Your task to perform on an android device: What's on my calendar tomorrow? Image 0: 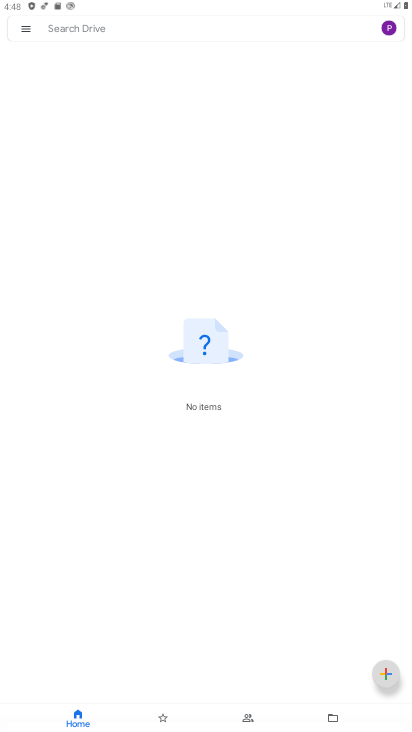
Step 0: press home button
Your task to perform on an android device: What's on my calendar tomorrow? Image 1: 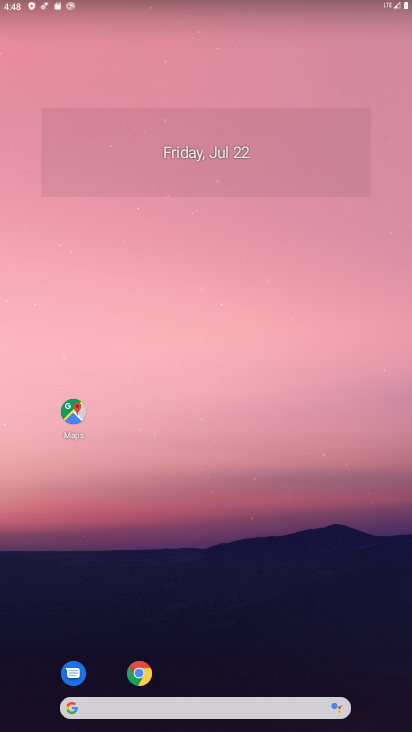
Step 1: drag from (231, 623) to (203, 198)
Your task to perform on an android device: What's on my calendar tomorrow? Image 2: 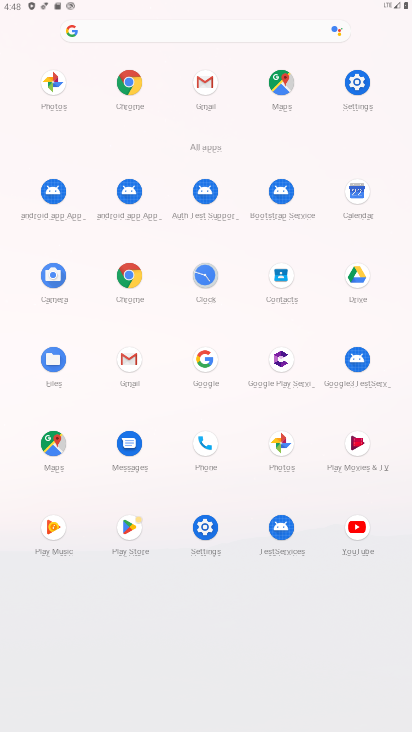
Step 2: click (359, 187)
Your task to perform on an android device: What's on my calendar tomorrow? Image 3: 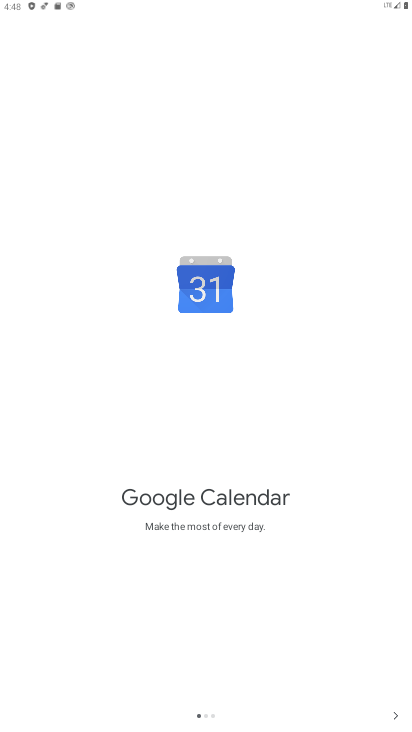
Step 3: click (387, 716)
Your task to perform on an android device: What's on my calendar tomorrow? Image 4: 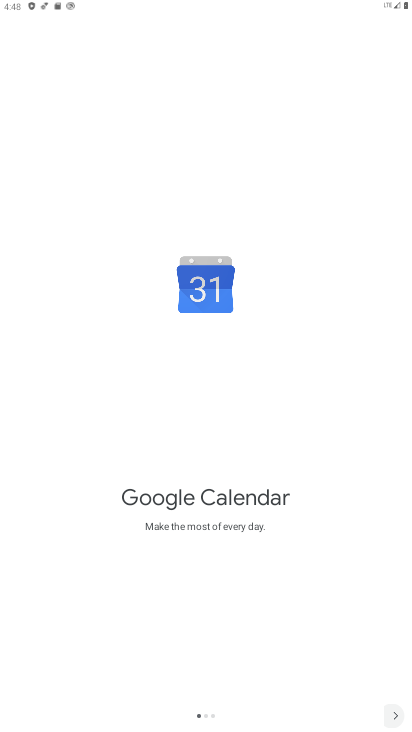
Step 4: click (387, 716)
Your task to perform on an android device: What's on my calendar tomorrow? Image 5: 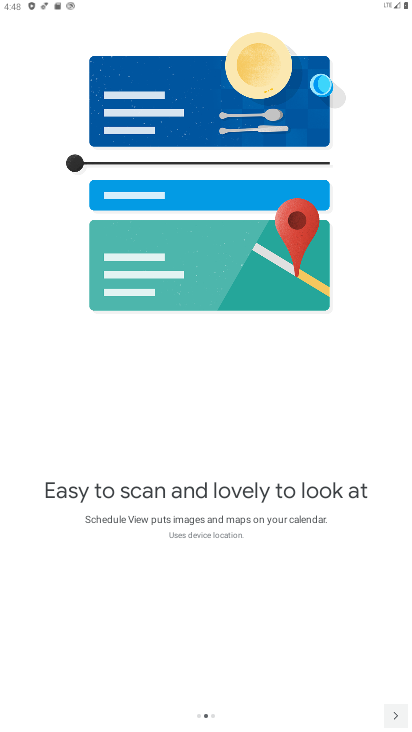
Step 5: click (386, 716)
Your task to perform on an android device: What's on my calendar tomorrow? Image 6: 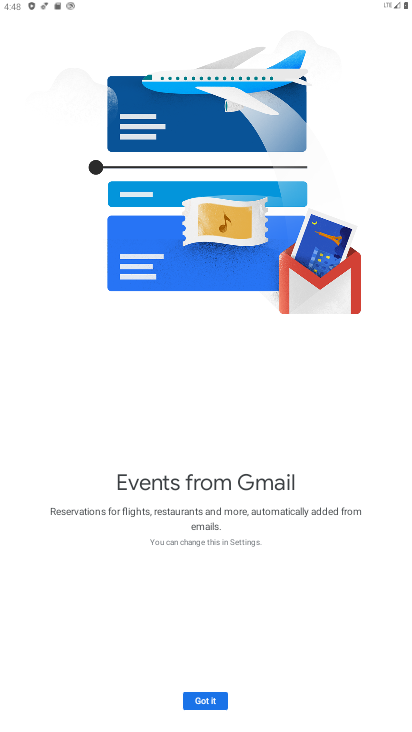
Step 6: click (386, 716)
Your task to perform on an android device: What's on my calendar tomorrow? Image 7: 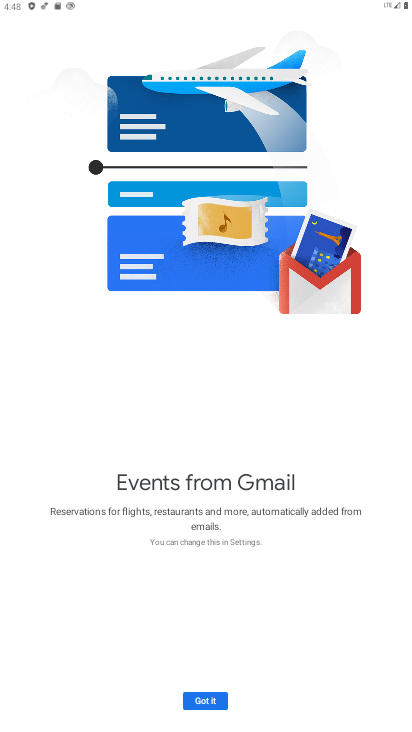
Step 7: click (207, 695)
Your task to perform on an android device: What's on my calendar tomorrow? Image 8: 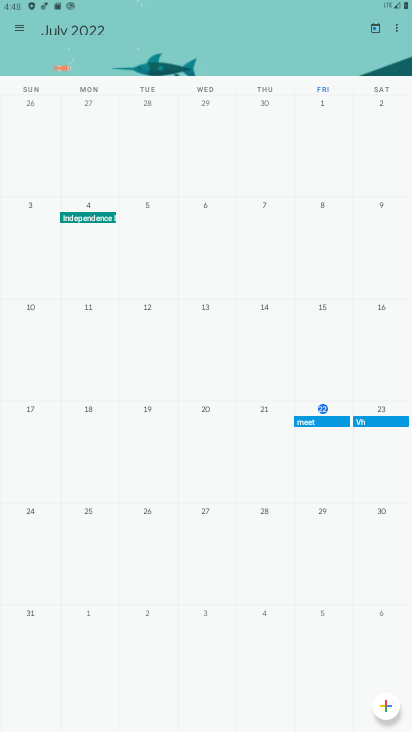
Step 8: click (377, 409)
Your task to perform on an android device: What's on my calendar tomorrow? Image 9: 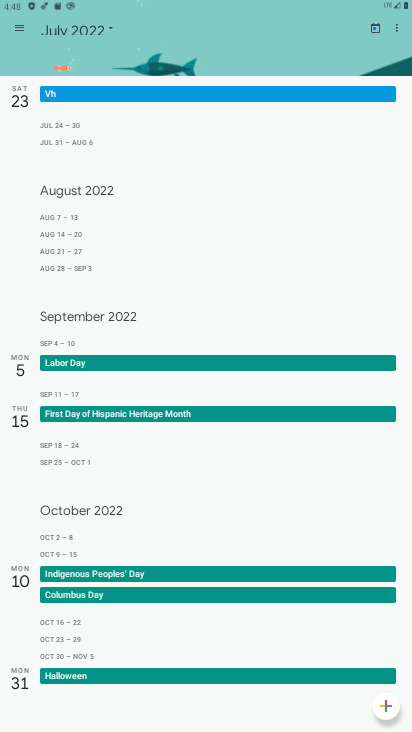
Step 9: task complete